Your task to perform on an android device: What's on my calendar tomorrow? Image 0: 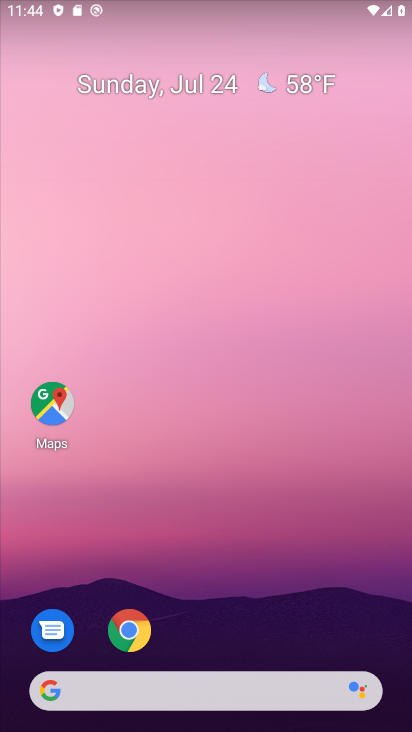
Step 0: drag from (240, 648) to (239, 101)
Your task to perform on an android device: What's on my calendar tomorrow? Image 1: 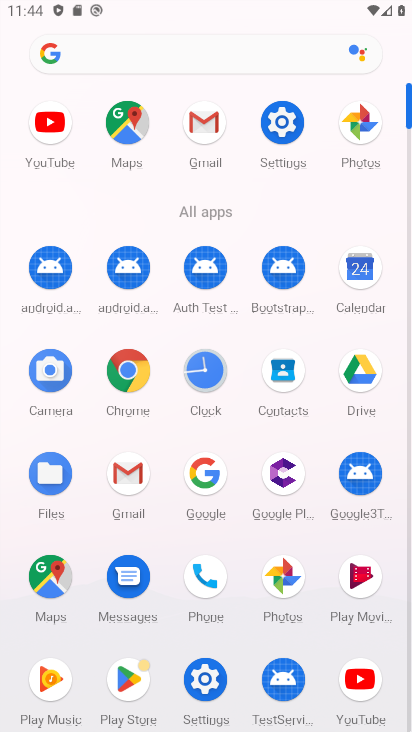
Step 1: click (364, 266)
Your task to perform on an android device: What's on my calendar tomorrow? Image 2: 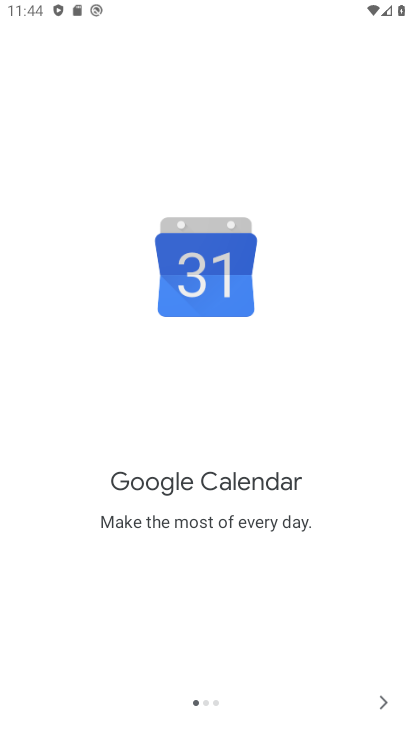
Step 2: click (385, 698)
Your task to perform on an android device: What's on my calendar tomorrow? Image 3: 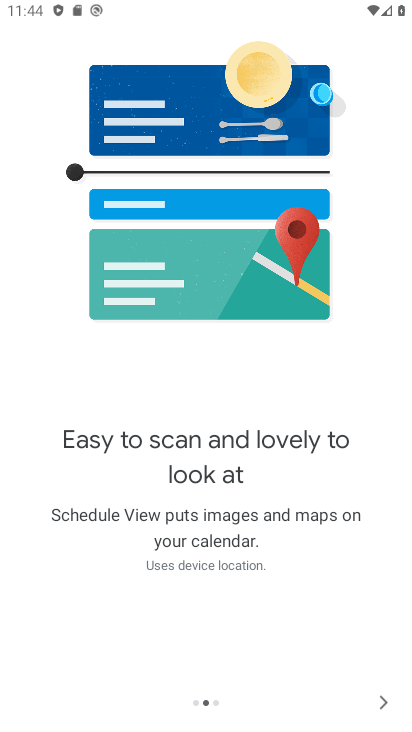
Step 3: click (385, 698)
Your task to perform on an android device: What's on my calendar tomorrow? Image 4: 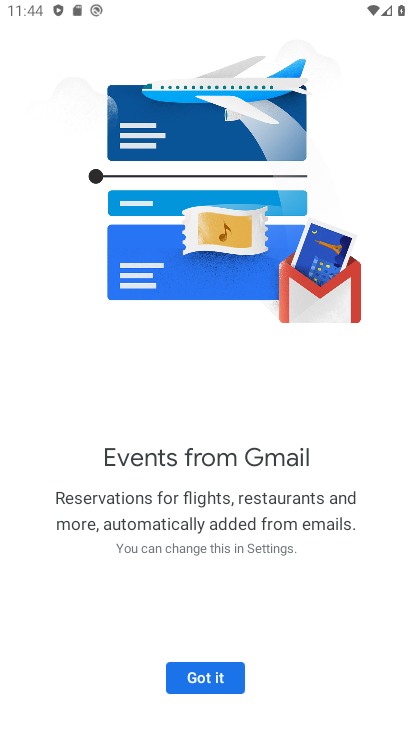
Step 4: click (216, 679)
Your task to perform on an android device: What's on my calendar tomorrow? Image 5: 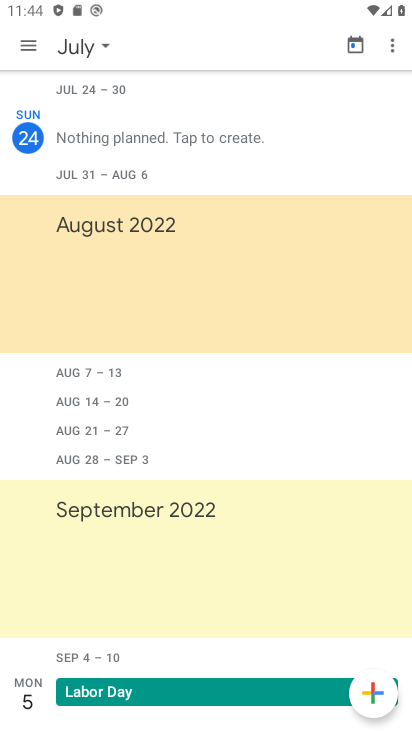
Step 5: click (24, 46)
Your task to perform on an android device: What's on my calendar tomorrow? Image 6: 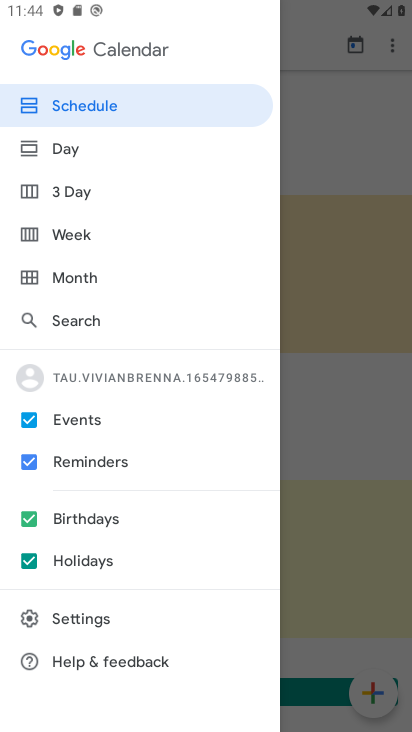
Step 6: click (70, 157)
Your task to perform on an android device: What's on my calendar tomorrow? Image 7: 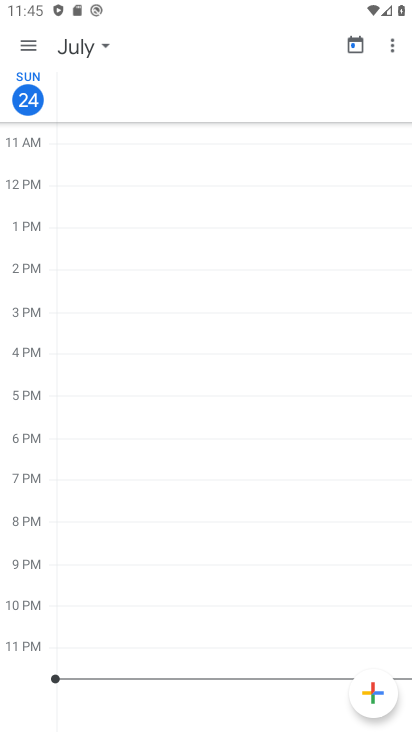
Step 7: task complete